Your task to perform on an android device: Go to wifi settings Image 0: 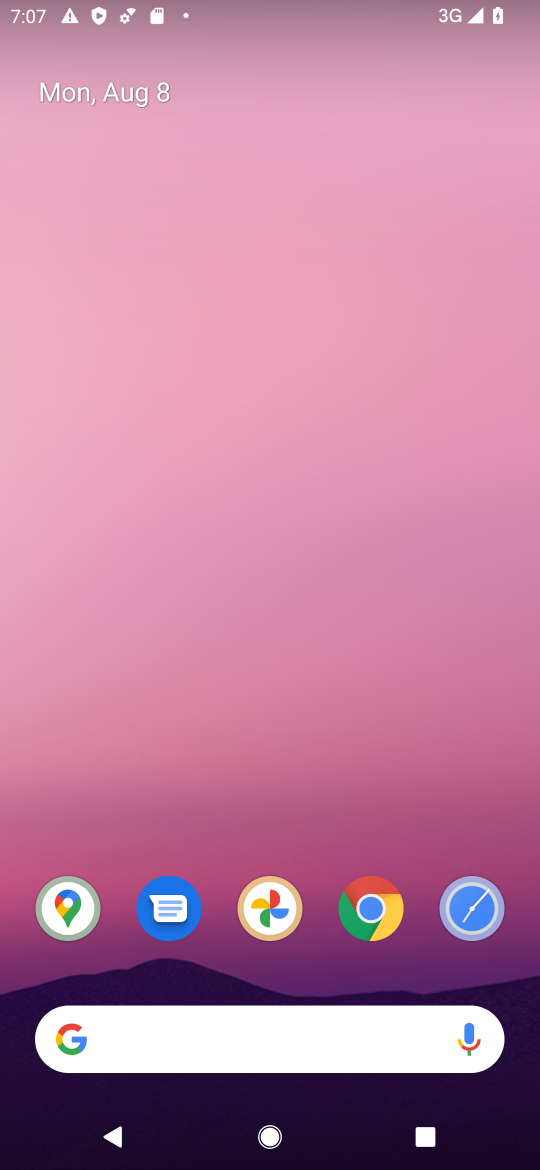
Step 0: drag from (251, 824) to (305, 107)
Your task to perform on an android device: Go to wifi settings Image 1: 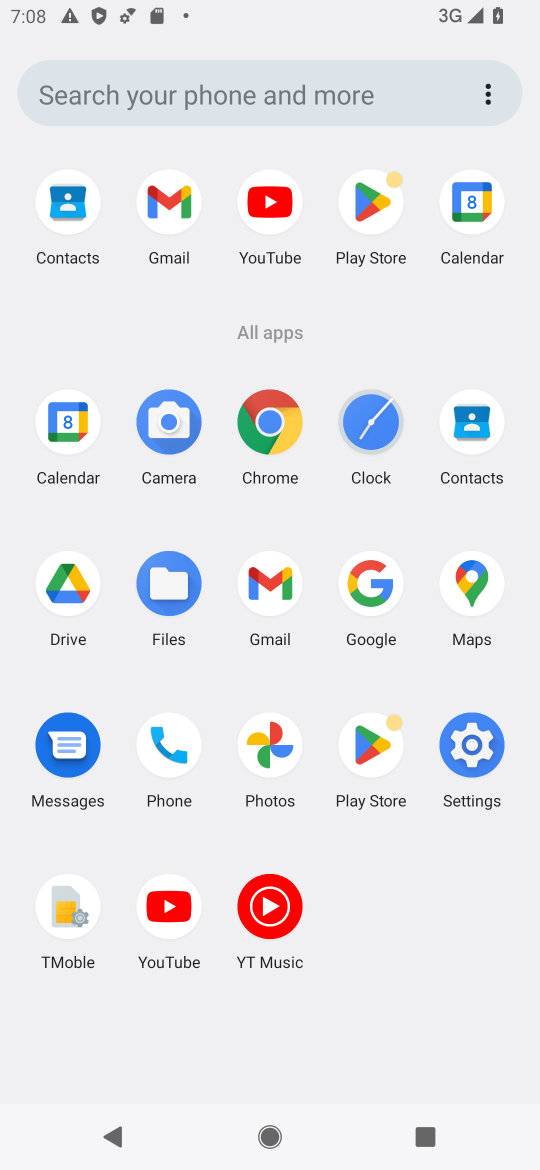
Step 1: click (463, 724)
Your task to perform on an android device: Go to wifi settings Image 2: 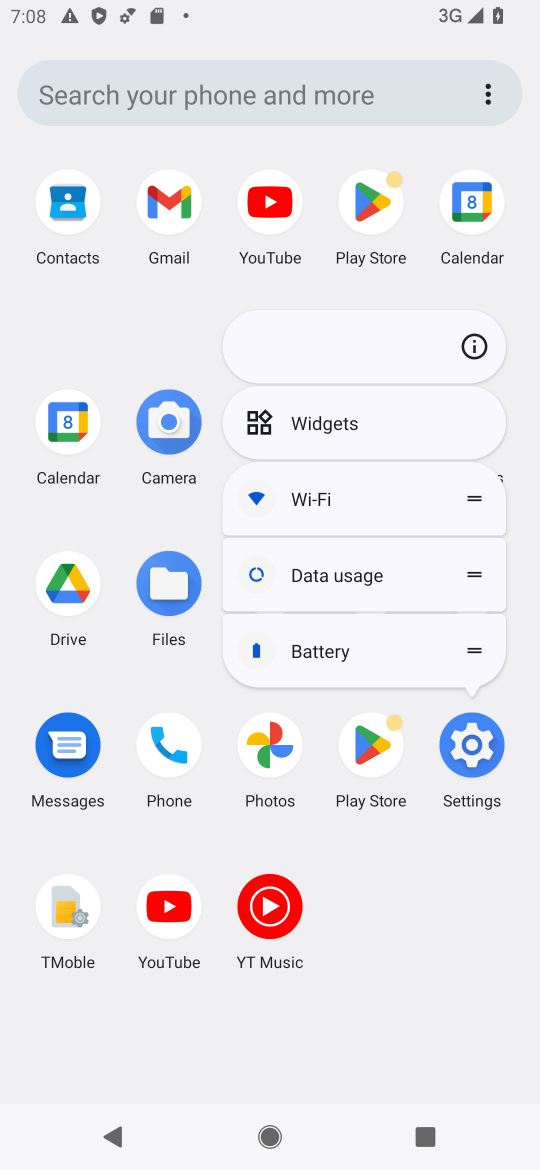
Step 2: click (447, 769)
Your task to perform on an android device: Go to wifi settings Image 3: 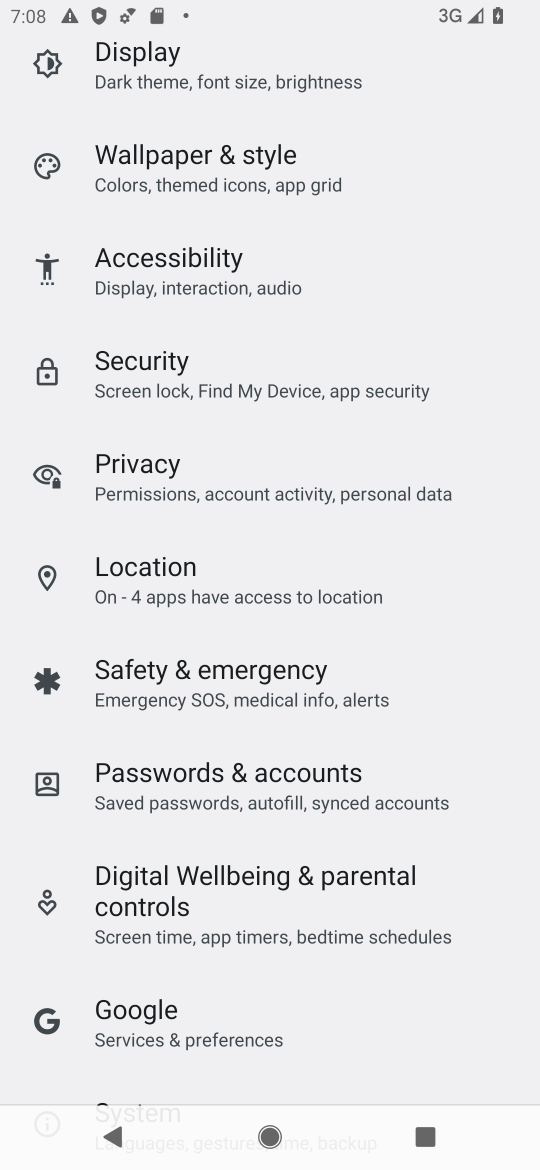
Step 3: drag from (318, 829) to (361, 1002)
Your task to perform on an android device: Go to wifi settings Image 4: 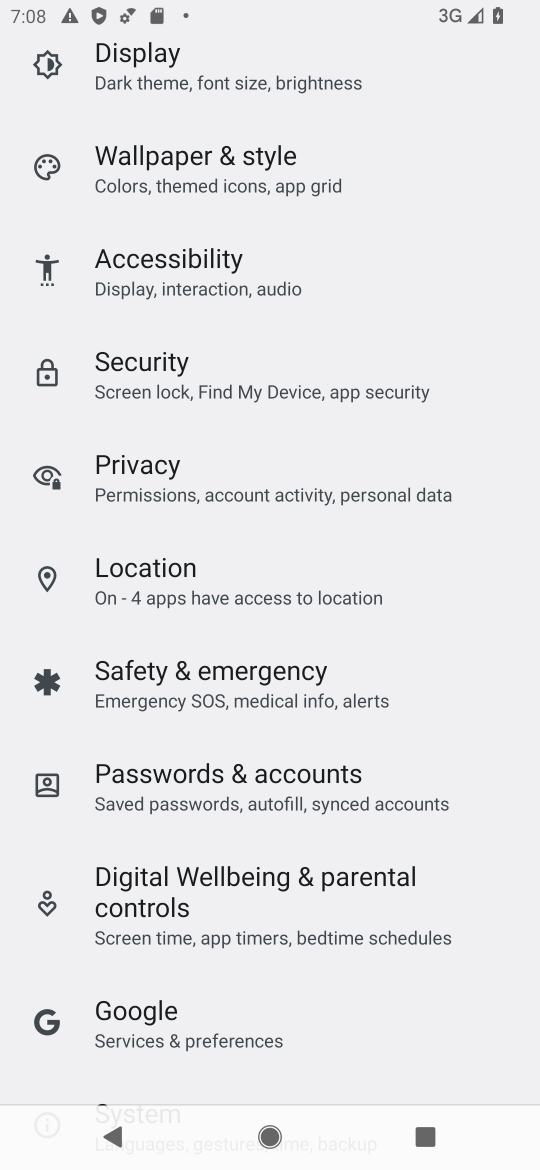
Step 4: drag from (271, 475) to (344, 1082)
Your task to perform on an android device: Go to wifi settings Image 5: 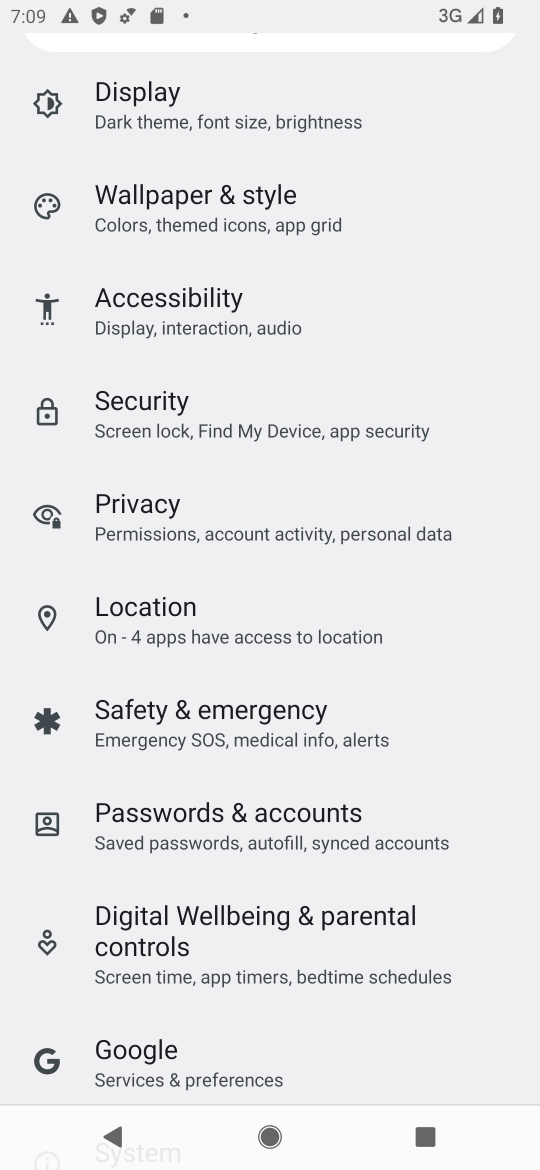
Step 5: drag from (400, 537) to (451, 755)
Your task to perform on an android device: Go to wifi settings Image 6: 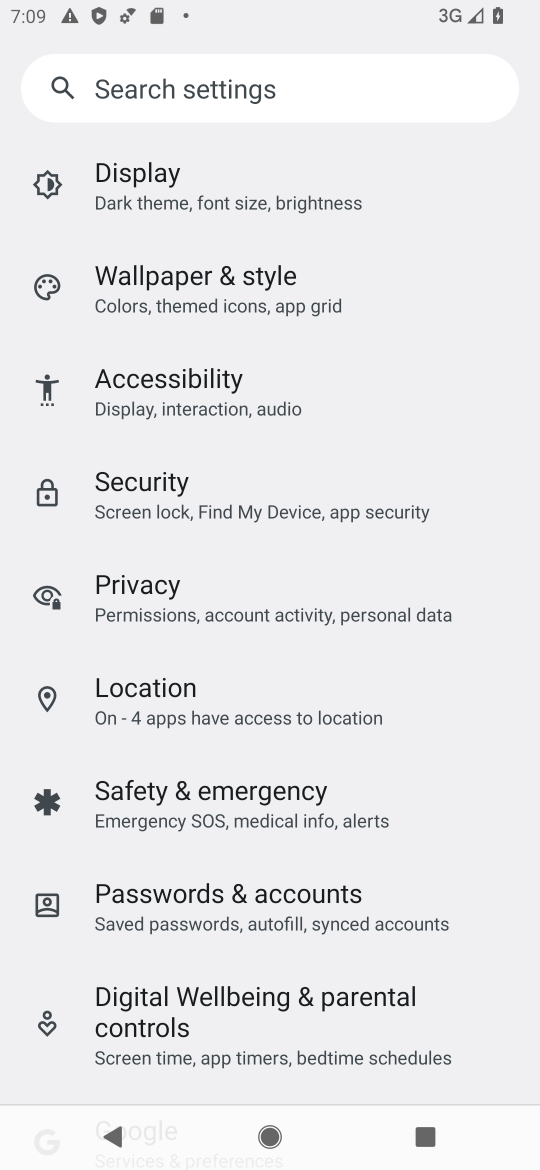
Step 6: drag from (288, 133) to (205, 947)
Your task to perform on an android device: Go to wifi settings Image 7: 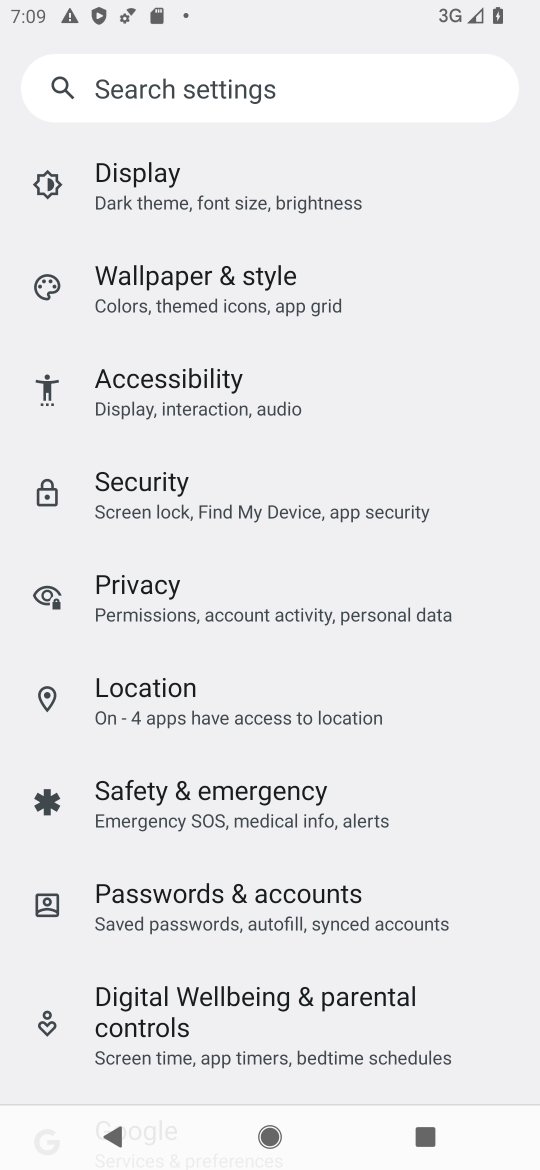
Step 7: drag from (261, 452) to (537, 969)
Your task to perform on an android device: Go to wifi settings Image 8: 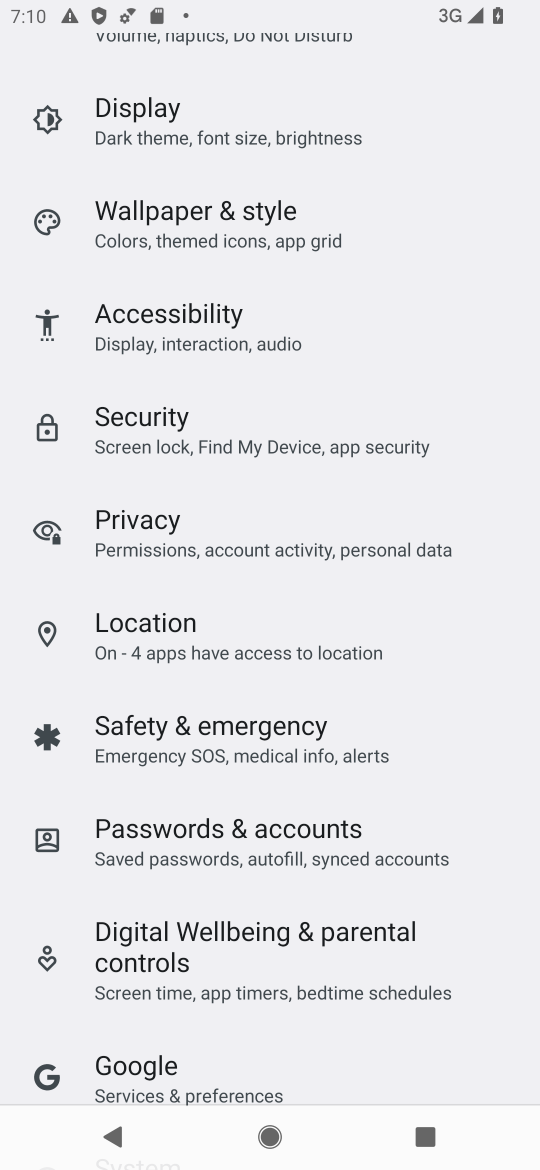
Step 8: click (314, 1113)
Your task to perform on an android device: Go to wifi settings Image 9: 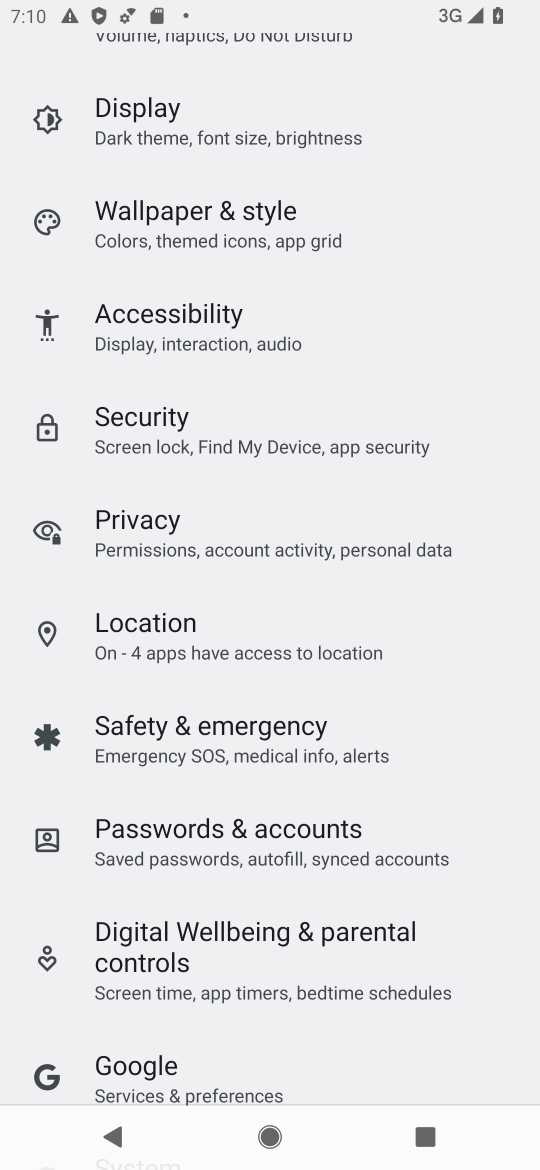
Step 9: click (332, 1080)
Your task to perform on an android device: Go to wifi settings Image 10: 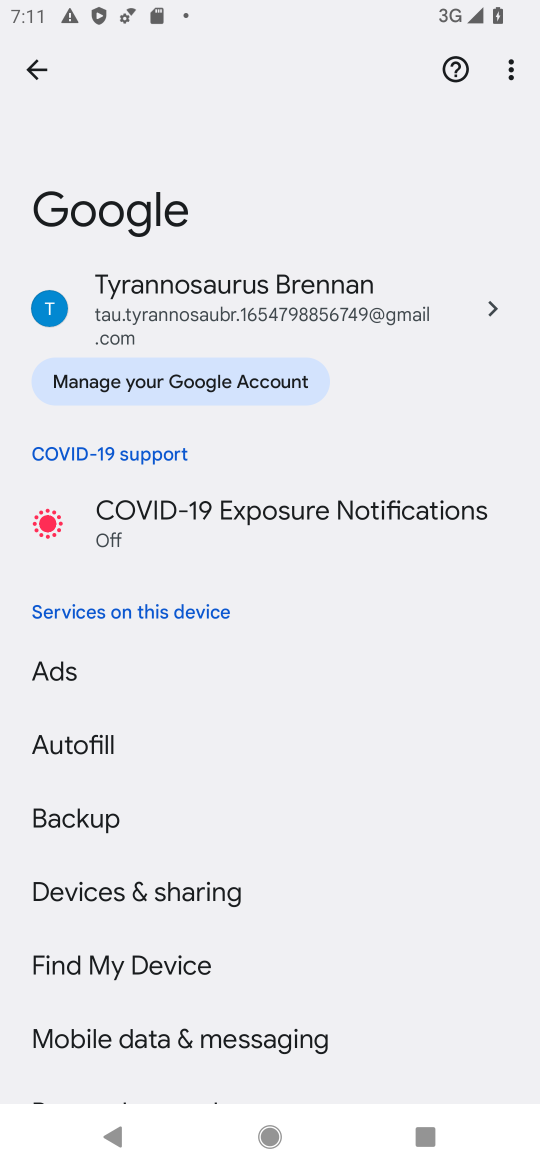
Step 10: drag from (211, 23) to (338, 1107)
Your task to perform on an android device: Go to wifi settings Image 11: 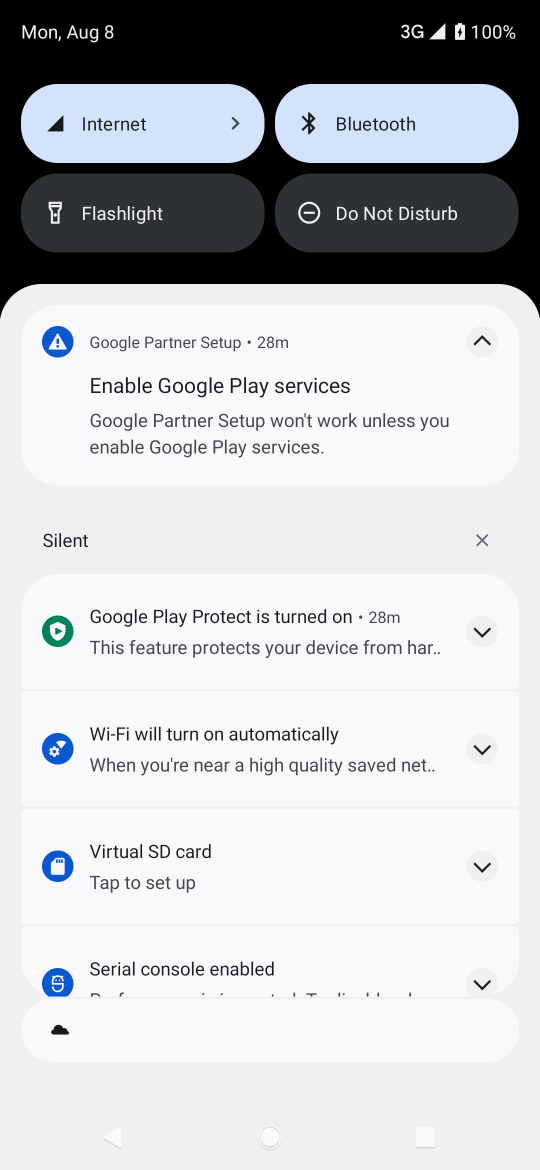
Step 11: click (137, 122)
Your task to perform on an android device: Go to wifi settings Image 12: 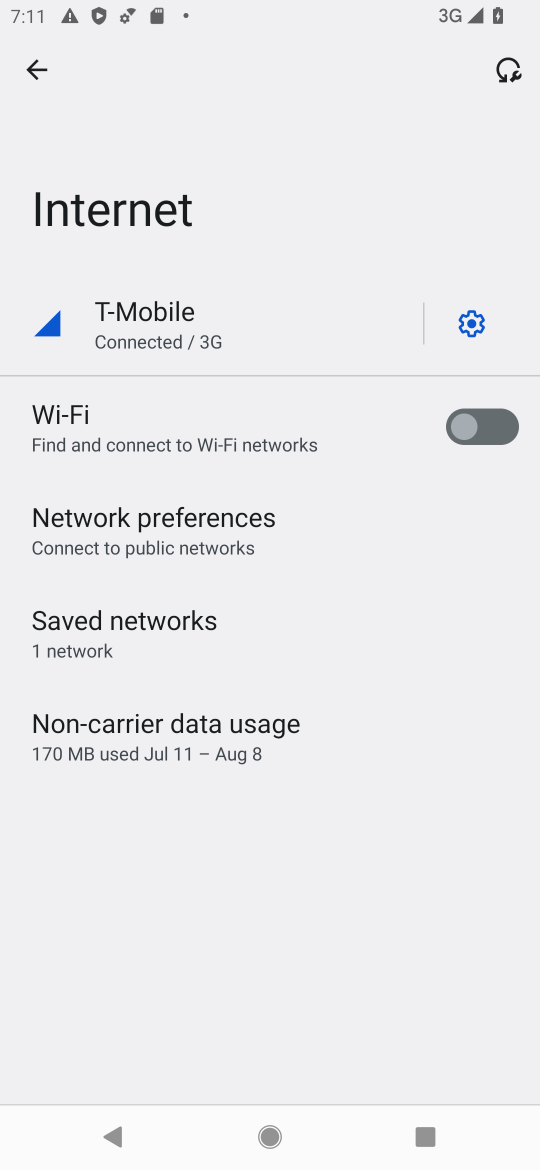
Step 12: click (221, 449)
Your task to perform on an android device: Go to wifi settings Image 13: 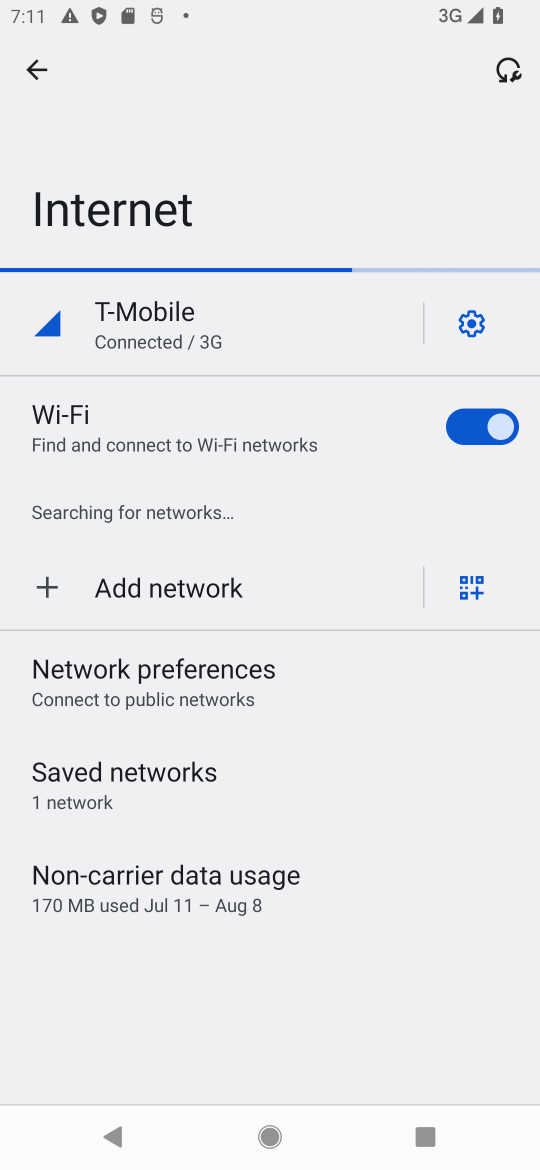
Step 13: task complete